Your task to perform on an android device: add a contact in the contacts app Image 0: 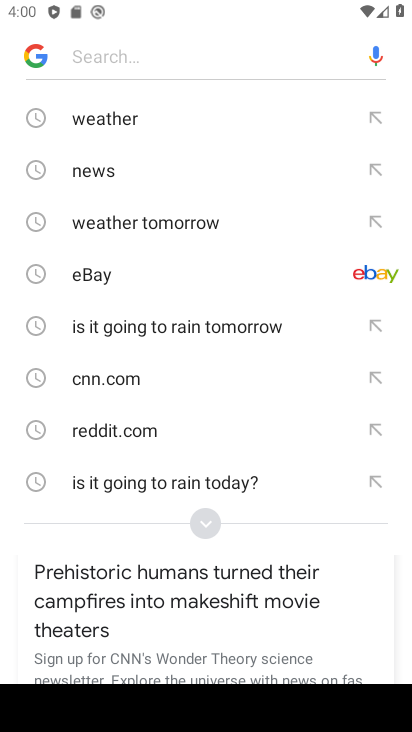
Step 0: press home button
Your task to perform on an android device: add a contact in the contacts app Image 1: 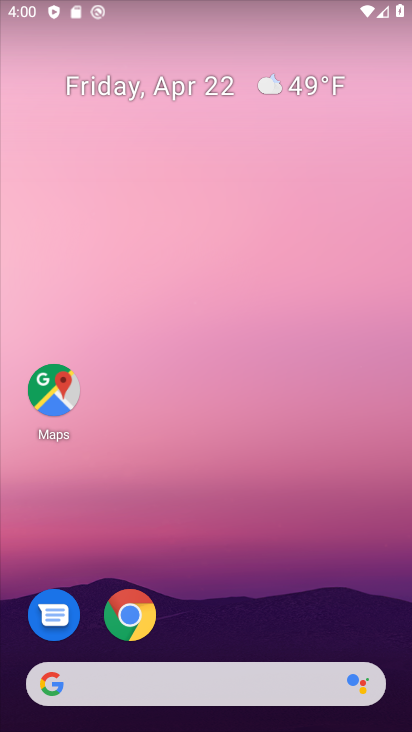
Step 1: drag from (229, 619) to (229, 166)
Your task to perform on an android device: add a contact in the contacts app Image 2: 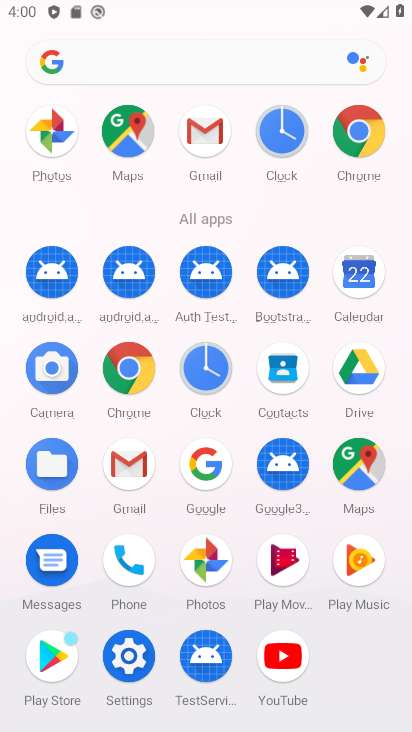
Step 2: click (280, 372)
Your task to perform on an android device: add a contact in the contacts app Image 3: 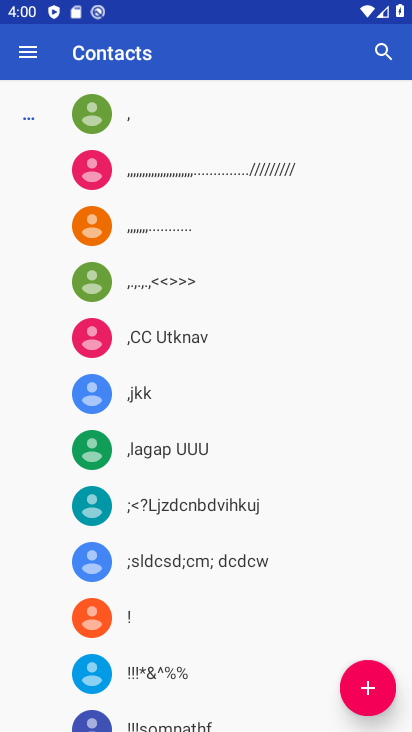
Step 3: click (370, 678)
Your task to perform on an android device: add a contact in the contacts app Image 4: 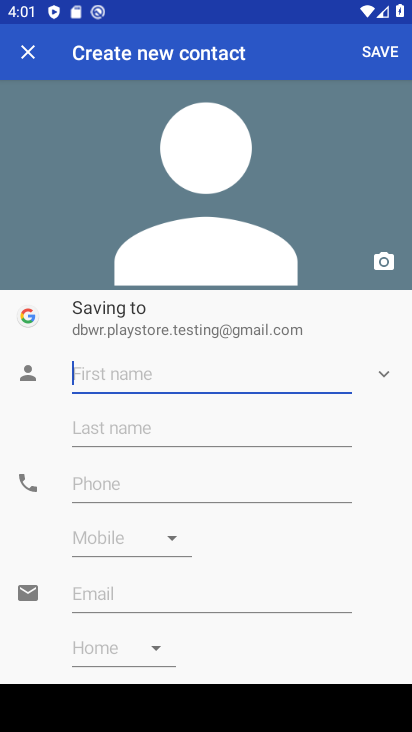
Step 4: type "hjgjh"
Your task to perform on an android device: add a contact in the contacts app Image 5: 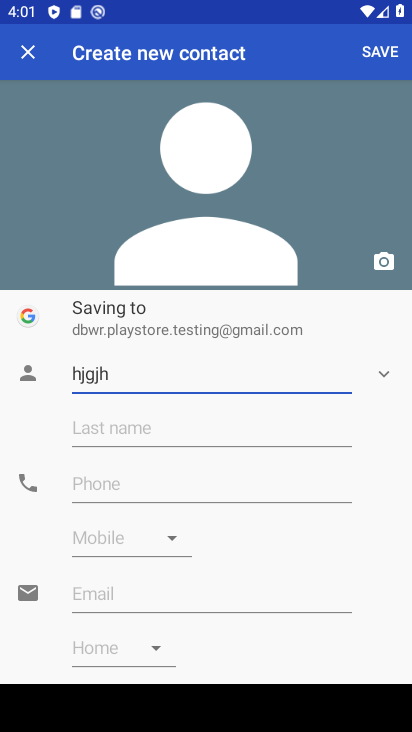
Step 5: click (145, 480)
Your task to perform on an android device: add a contact in the contacts app Image 6: 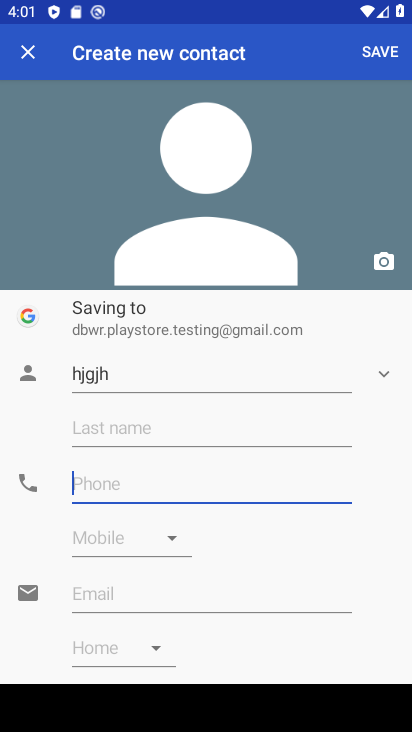
Step 6: type "987968687"
Your task to perform on an android device: add a contact in the contacts app Image 7: 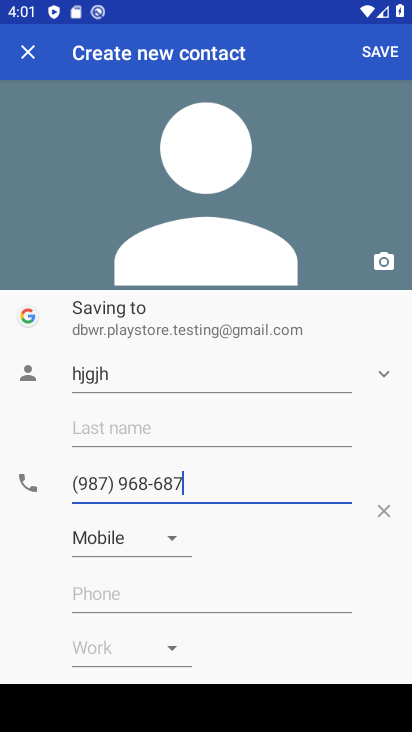
Step 7: click (396, 52)
Your task to perform on an android device: add a contact in the contacts app Image 8: 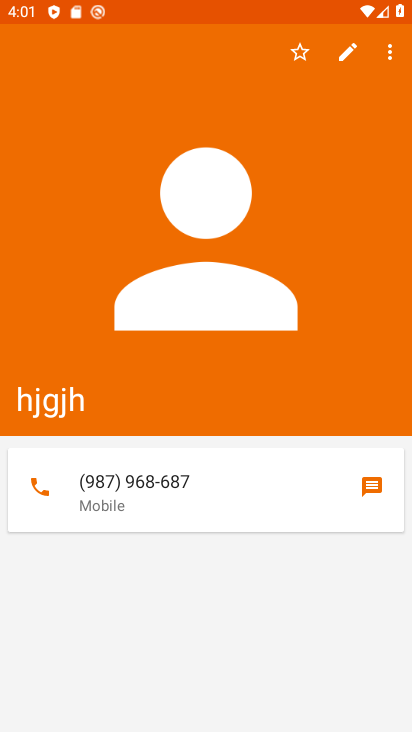
Step 8: task complete